Your task to perform on an android device: Open the calendar app, open the side menu, and click the "Day" option Image 0: 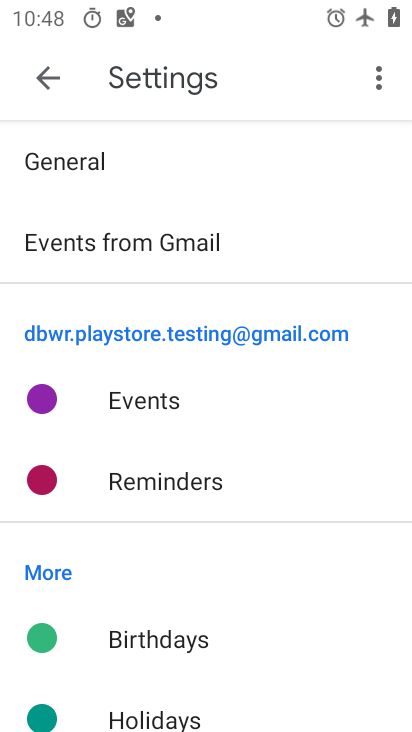
Step 0: press home button
Your task to perform on an android device: Open the calendar app, open the side menu, and click the "Day" option Image 1: 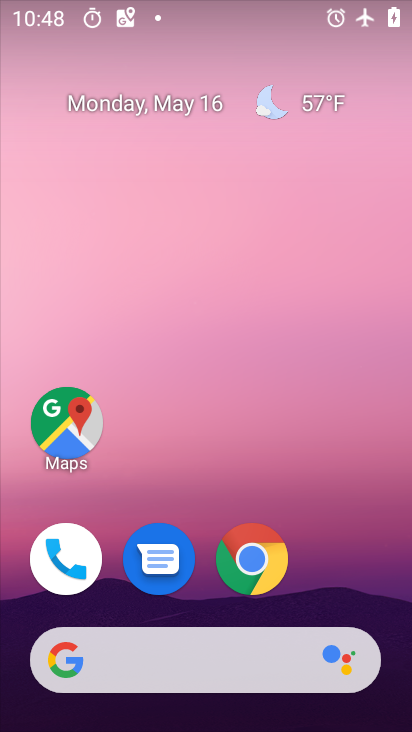
Step 1: drag from (383, 554) to (127, 100)
Your task to perform on an android device: Open the calendar app, open the side menu, and click the "Day" option Image 2: 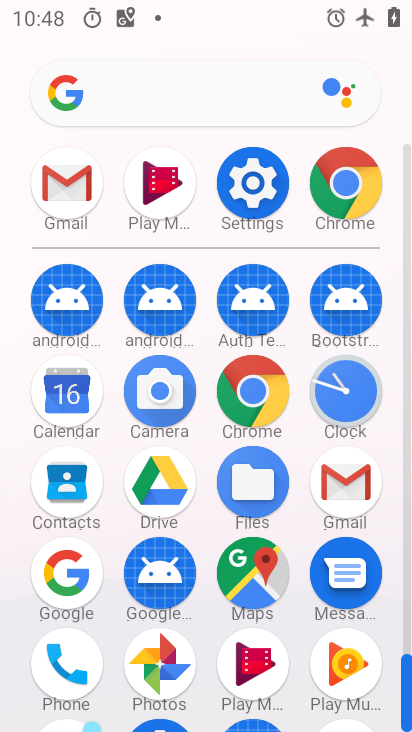
Step 2: click (69, 406)
Your task to perform on an android device: Open the calendar app, open the side menu, and click the "Day" option Image 3: 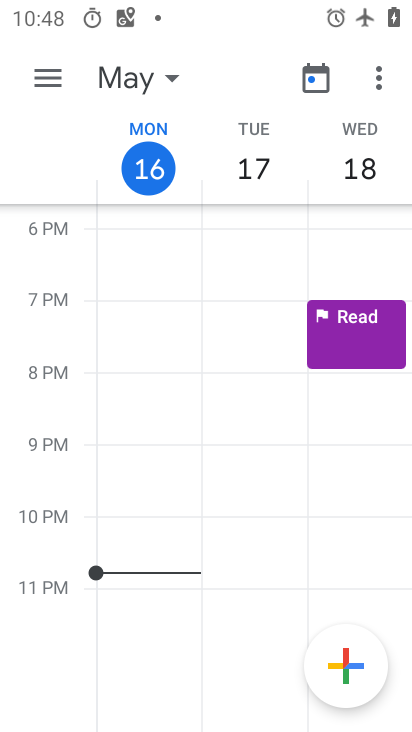
Step 3: click (42, 90)
Your task to perform on an android device: Open the calendar app, open the side menu, and click the "Day" option Image 4: 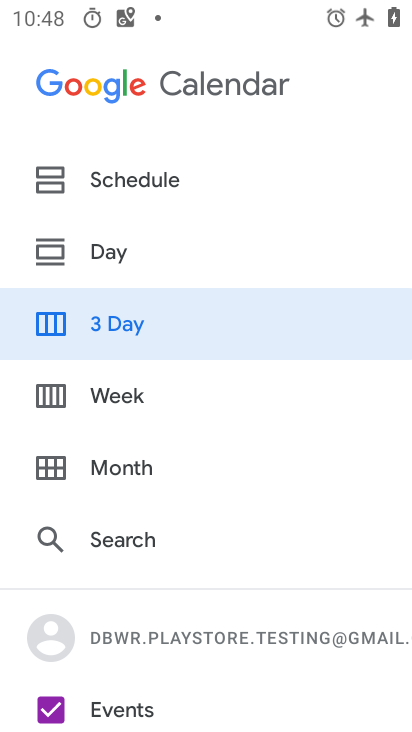
Step 4: click (116, 243)
Your task to perform on an android device: Open the calendar app, open the side menu, and click the "Day" option Image 5: 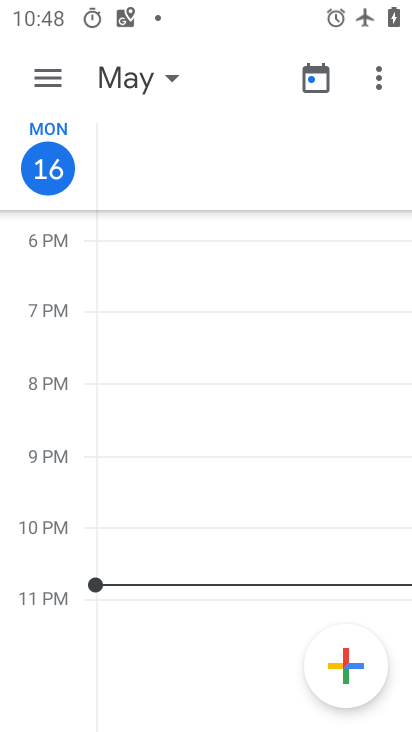
Step 5: task complete